Your task to perform on an android device: Open Amazon Image 0: 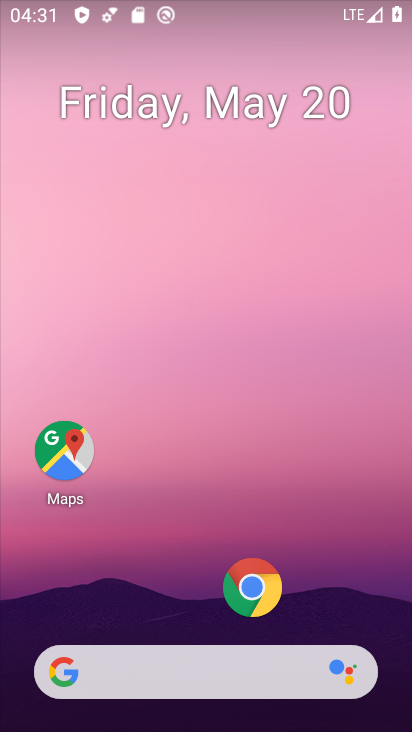
Step 0: click (256, 579)
Your task to perform on an android device: Open Amazon Image 1: 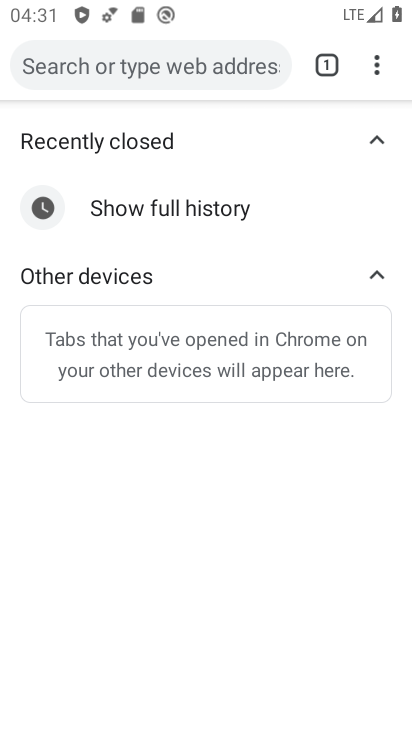
Step 1: click (339, 57)
Your task to perform on an android device: Open Amazon Image 2: 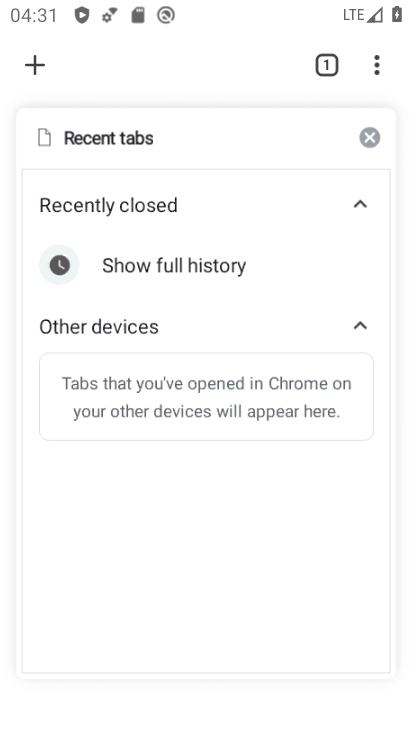
Step 2: click (35, 76)
Your task to perform on an android device: Open Amazon Image 3: 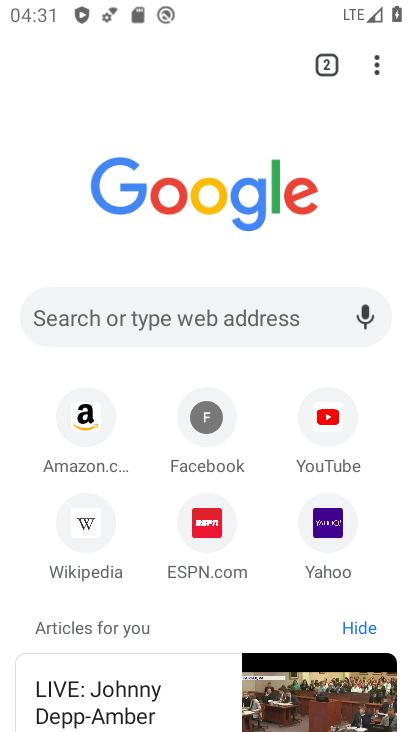
Step 3: click (84, 433)
Your task to perform on an android device: Open Amazon Image 4: 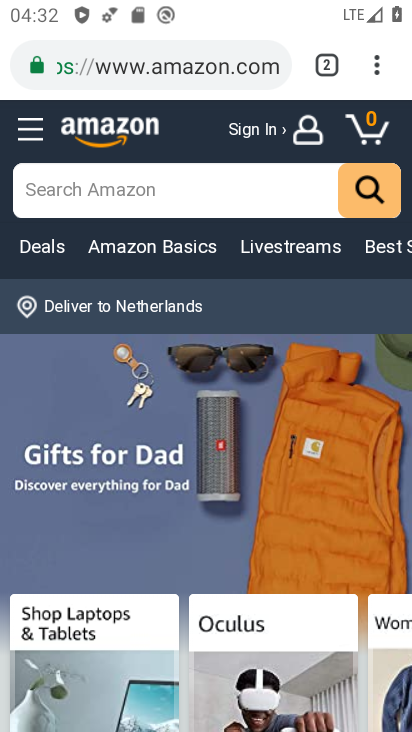
Step 4: task complete